Your task to perform on an android device: toggle airplane mode Image 0: 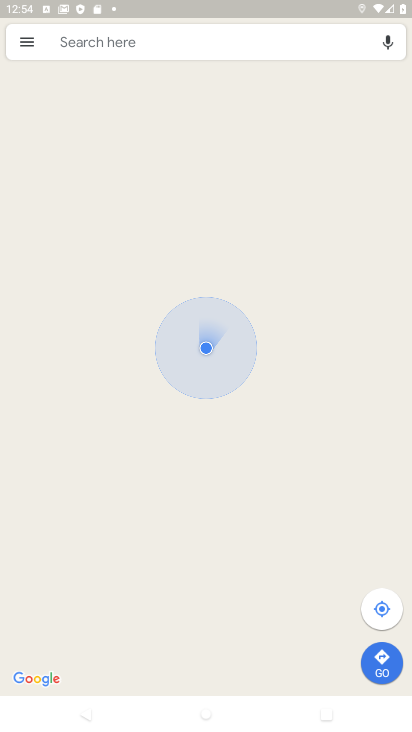
Step 0: press home button
Your task to perform on an android device: toggle airplane mode Image 1: 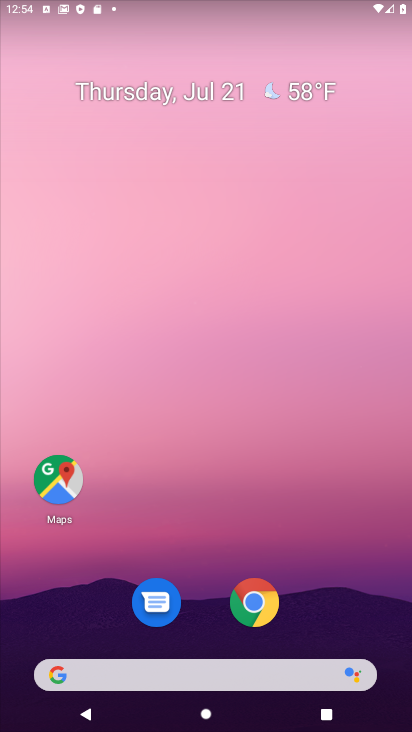
Step 1: drag from (216, 7) to (190, 452)
Your task to perform on an android device: toggle airplane mode Image 2: 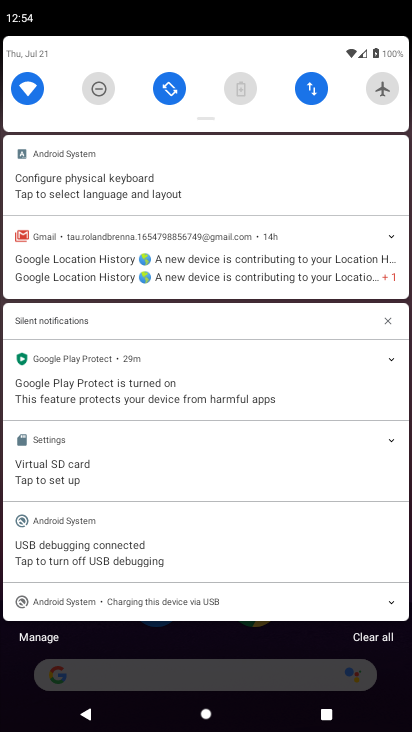
Step 2: click (381, 91)
Your task to perform on an android device: toggle airplane mode Image 3: 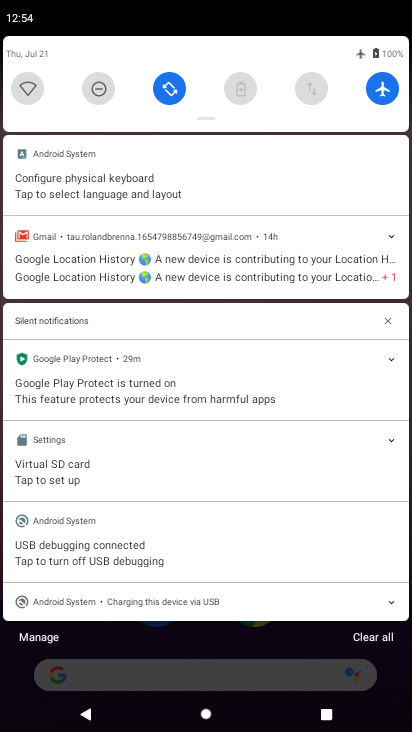
Step 3: task complete